Your task to perform on an android device: Open maps Image 0: 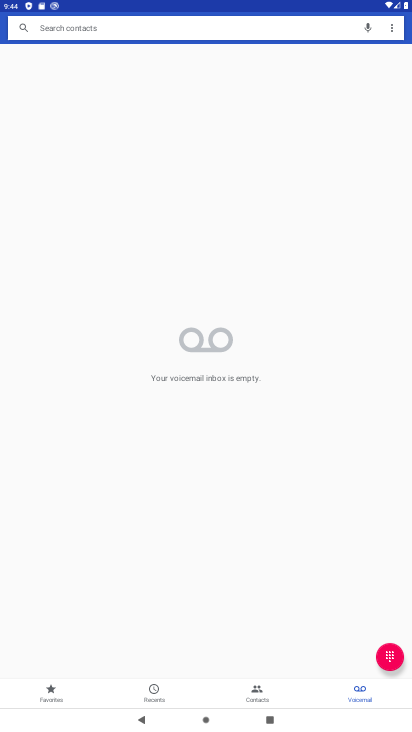
Step 0: press home button
Your task to perform on an android device: Open maps Image 1: 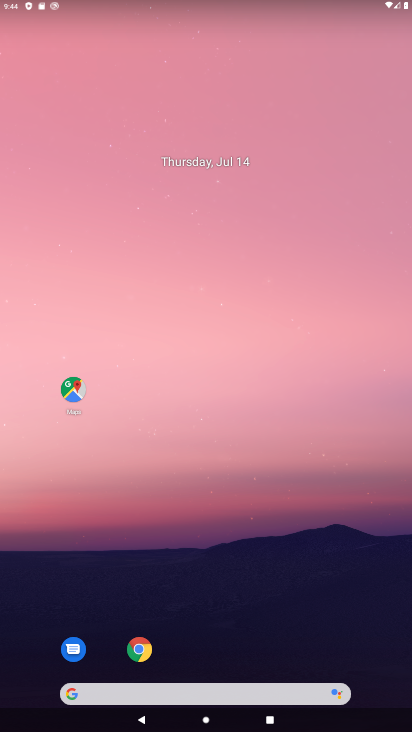
Step 1: click (75, 406)
Your task to perform on an android device: Open maps Image 2: 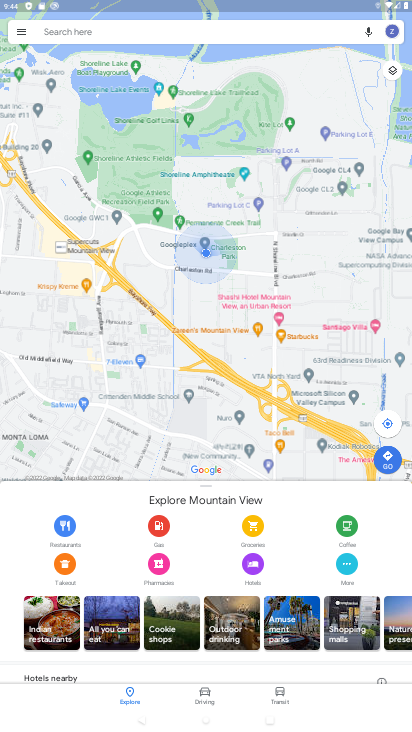
Step 2: task complete